Your task to perform on an android device: find photos in the google photos app Image 0: 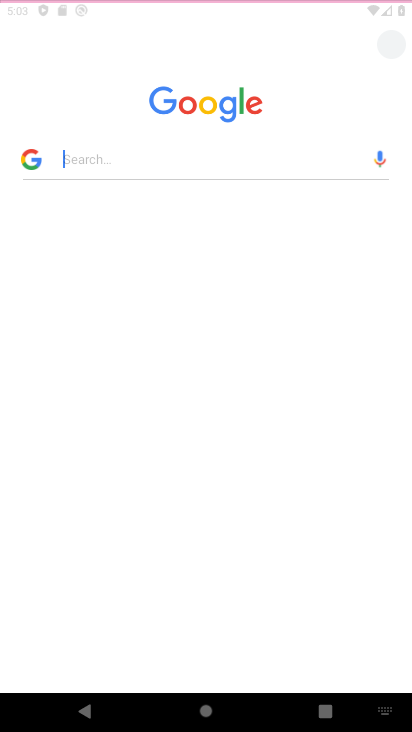
Step 0: drag from (257, 648) to (311, 80)
Your task to perform on an android device: find photos in the google photos app Image 1: 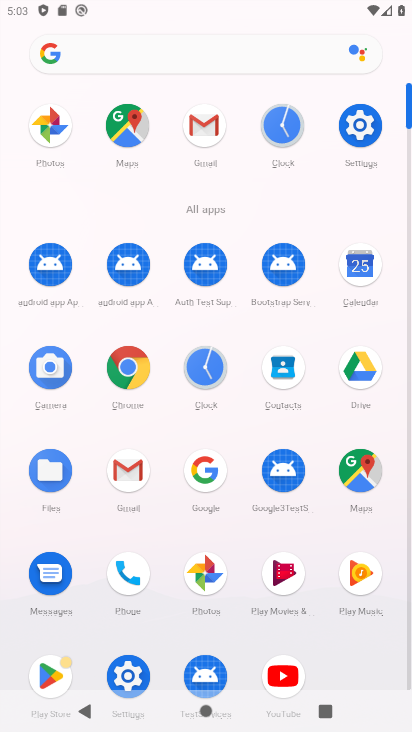
Step 1: press home button
Your task to perform on an android device: find photos in the google photos app Image 2: 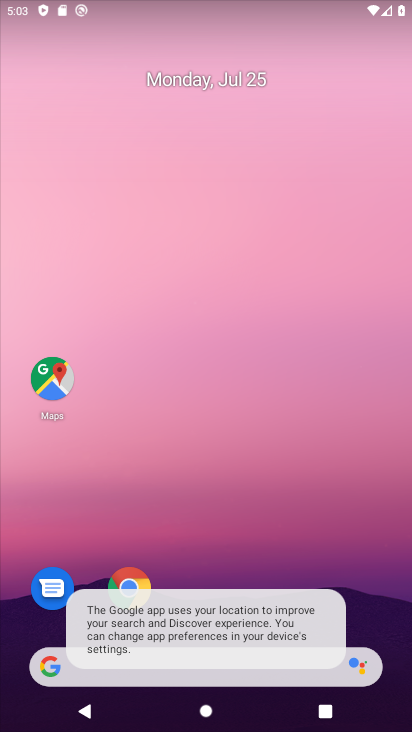
Step 2: drag from (305, 583) to (363, 53)
Your task to perform on an android device: find photos in the google photos app Image 3: 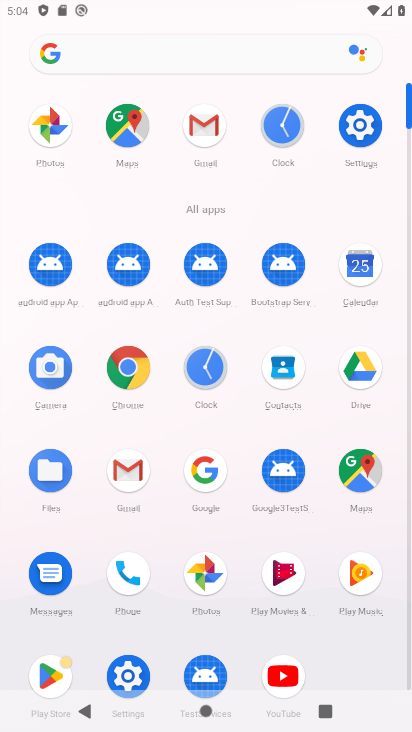
Step 3: click (204, 580)
Your task to perform on an android device: find photos in the google photos app Image 4: 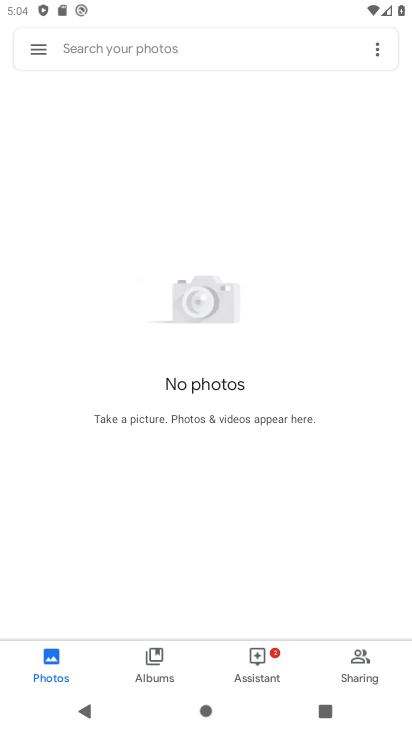
Step 4: task complete